Your task to perform on an android device: Open battery settings Image 0: 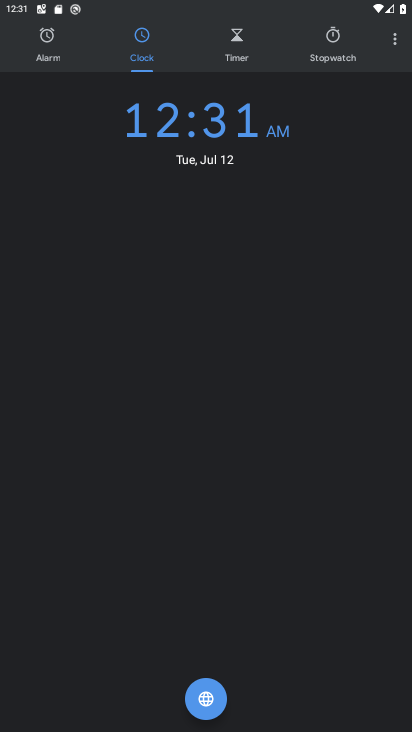
Step 0: press home button
Your task to perform on an android device: Open battery settings Image 1: 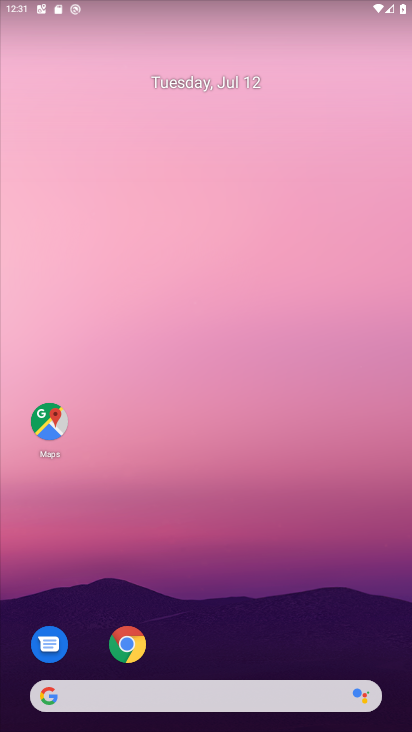
Step 1: drag from (185, 662) to (269, 209)
Your task to perform on an android device: Open battery settings Image 2: 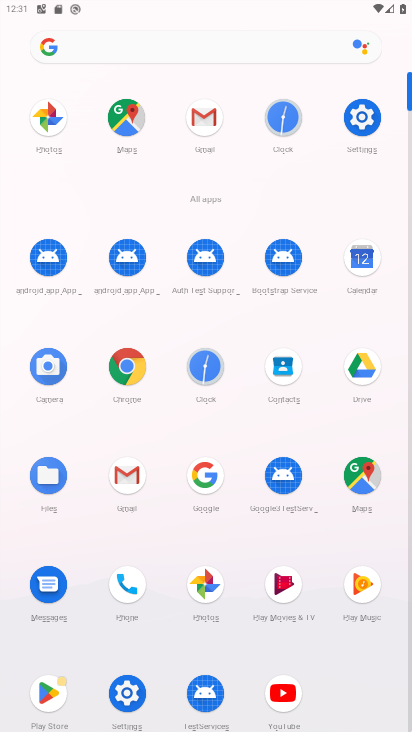
Step 2: click (116, 702)
Your task to perform on an android device: Open battery settings Image 3: 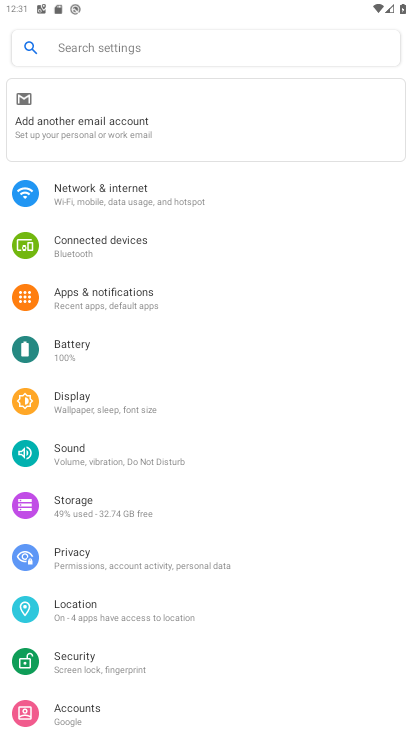
Step 3: click (74, 337)
Your task to perform on an android device: Open battery settings Image 4: 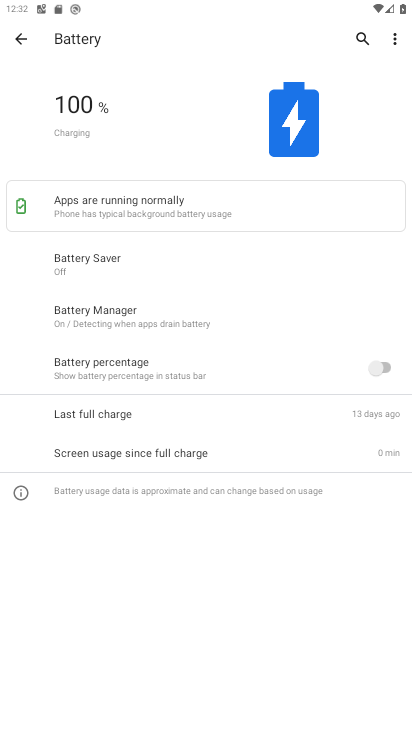
Step 4: task complete